Your task to perform on an android device: What is the recent news? Image 0: 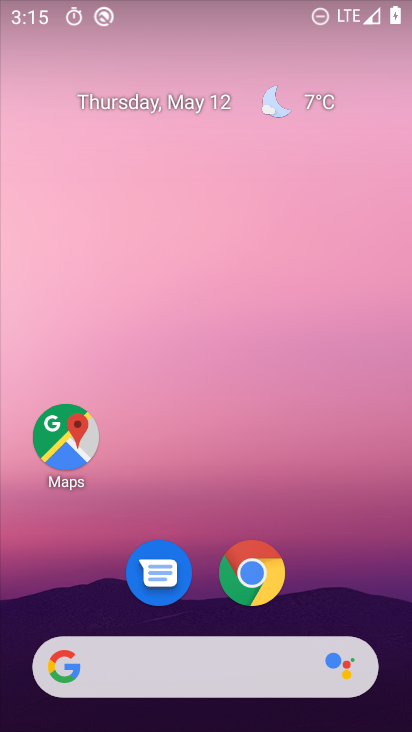
Step 0: drag from (20, 188) to (399, 541)
Your task to perform on an android device: What is the recent news? Image 1: 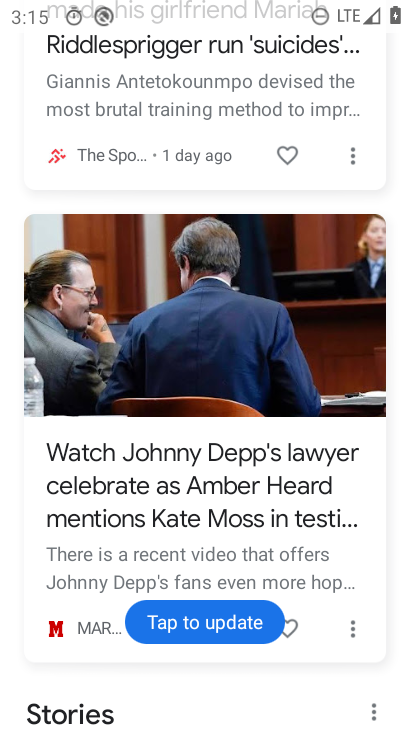
Step 1: task complete